Your task to perform on an android device: change timer sound Image 0: 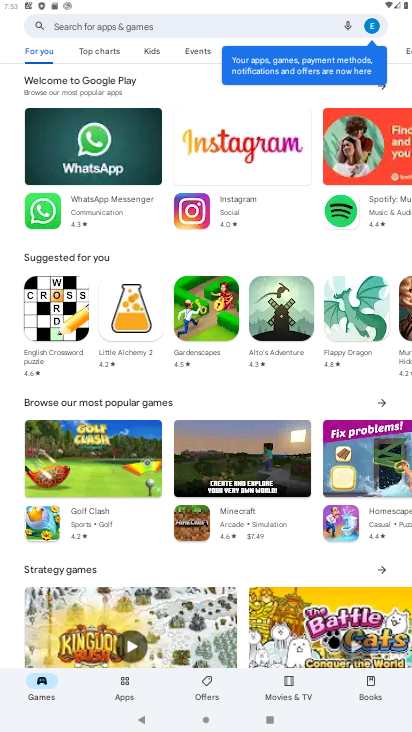
Step 0: press home button
Your task to perform on an android device: change timer sound Image 1: 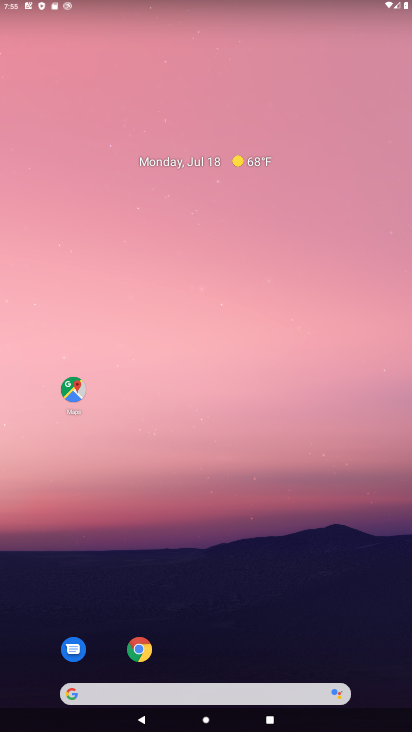
Step 1: drag from (247, 723) to (353, 103)
Your task to perform on an android device: change timer sound Image 2: 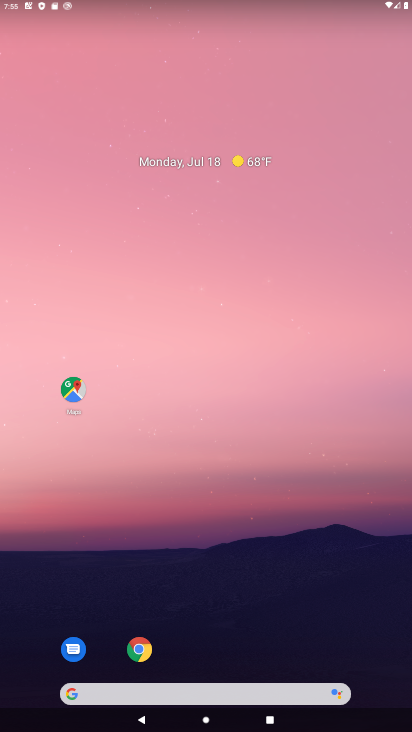
Step 2: drag from (233, 717) to (329, 11)
Your task to perform on an android device: change timer sound Image 3: 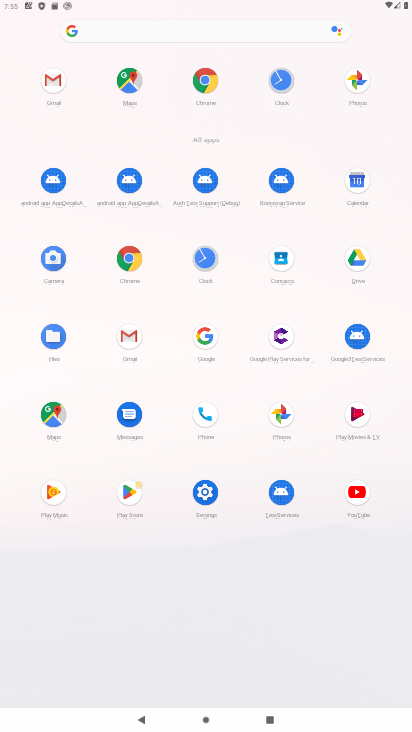
Step 3: click (294, 72)
Your task to perform on an android device: change timer sound Image 4: 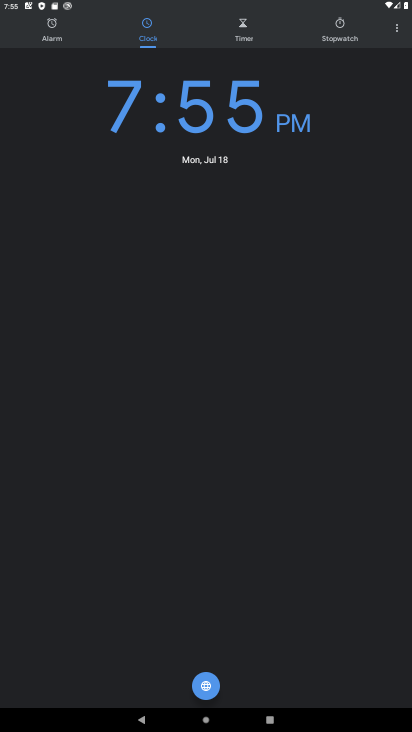
Step 4: click (396, 26)
Your task to perform on an android device: change timer sound Image 5: 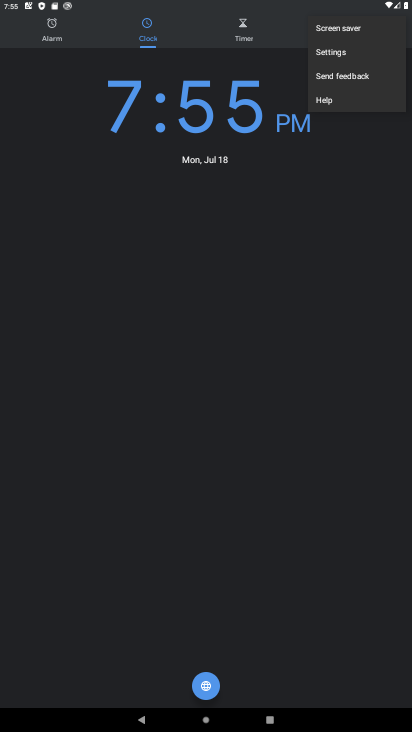
Step 5: click (340, 52)
Your task to perform on an android device: change timer sound Image 6: 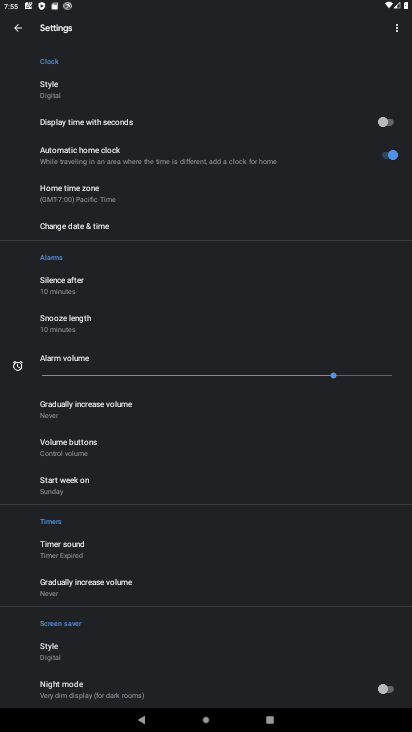
Step 6: click (70, 553)
Your task to perform on an android device: change timer sound Image 7: 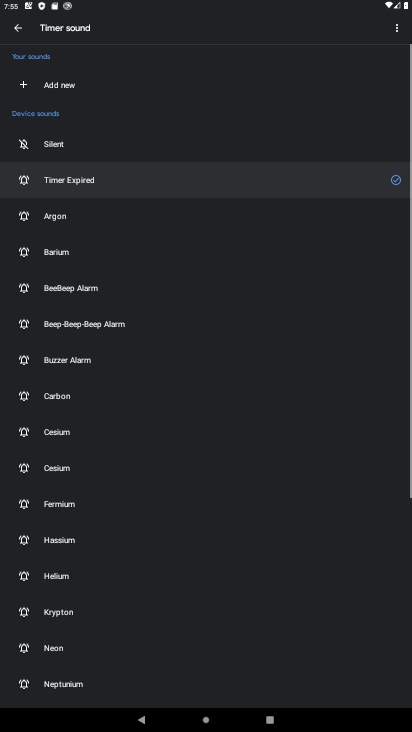
Step 7: click (73, 506)
Your task to perform on an android device: change timer sound Image 8: 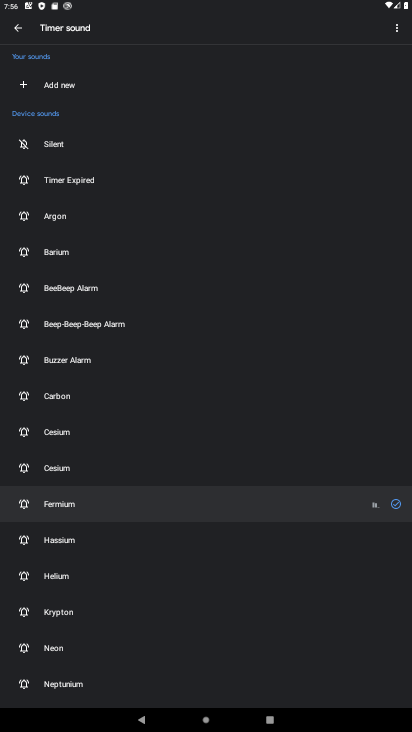
Step 8: task complete